Your task to perform on an android device: When is my next appointment? Image 0: 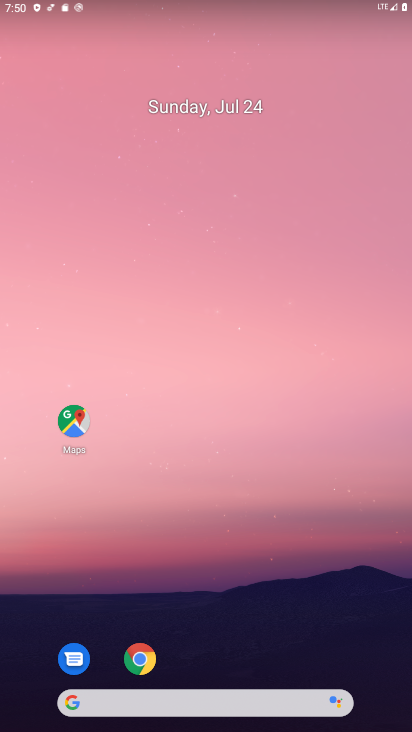
Step 0: drag from (224, 690) to (200, 242)
Your task to perform on an android device: When is my next appointment? Image 1: 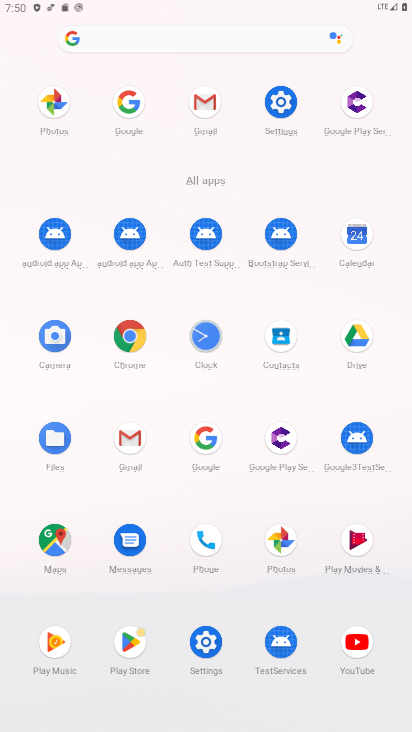
Step 1: click (357, 234)
Your task to perform on an android device: When is my next appointment? Image 2: 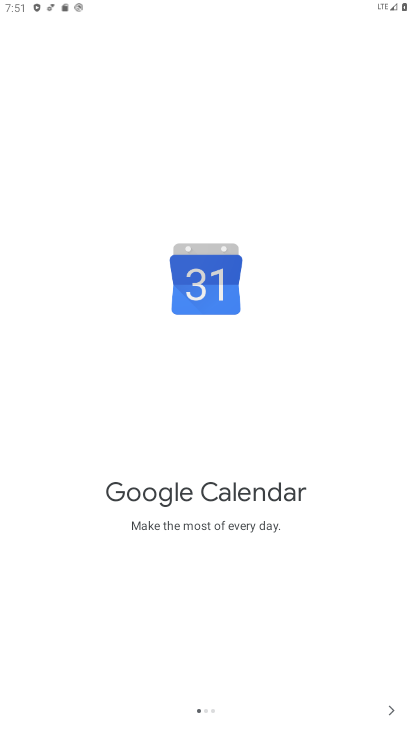
Step 2: click (391, 711)
Your task to perform on an android device: When is my next appointment? Image 3: 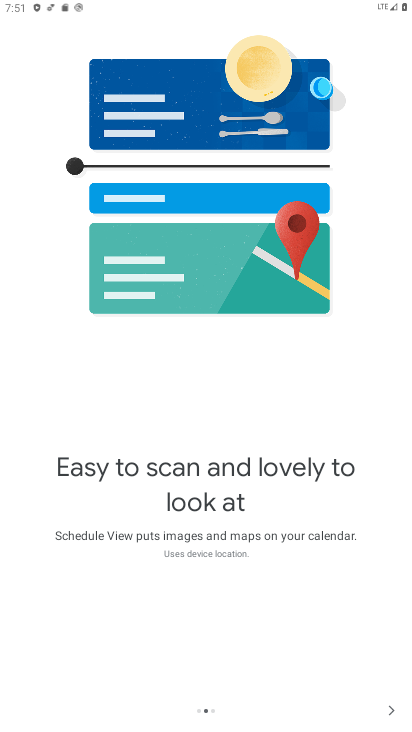
Step 3: click (394, 710)
Your task to perform on an android device: When is my next appointment? Image 4: 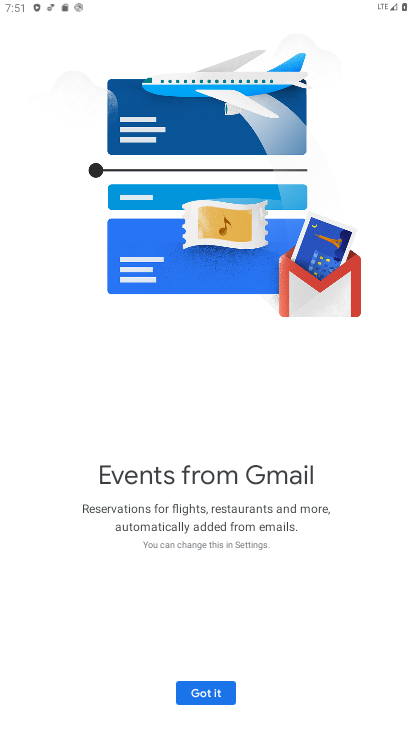
Step 4: click (217, 691)
Your task to perform on an android device: When is my next appointment? Image 5: 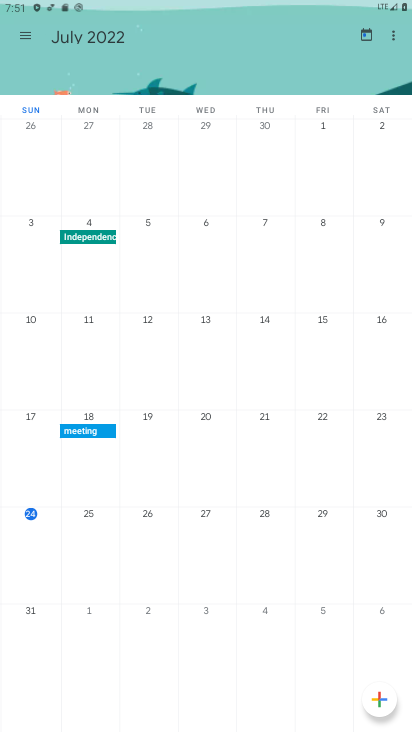
Step 5: click (93, 511)
Your task to perform on an android device: When is my next appointment? Image 6: 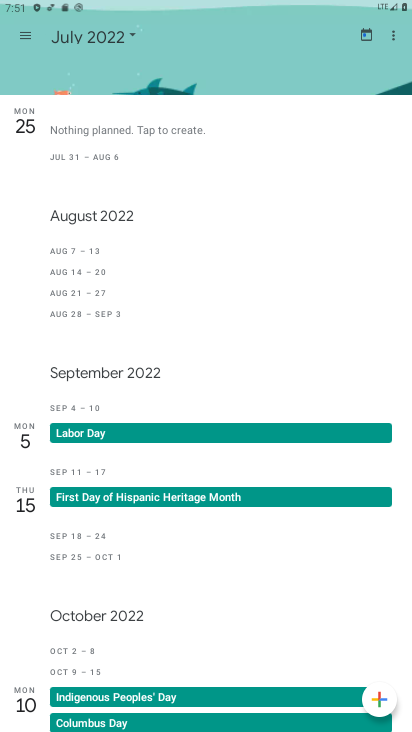
Step 6: click (134, 37)
Your task to perform on an android device: When is my next appointment? Image 7: 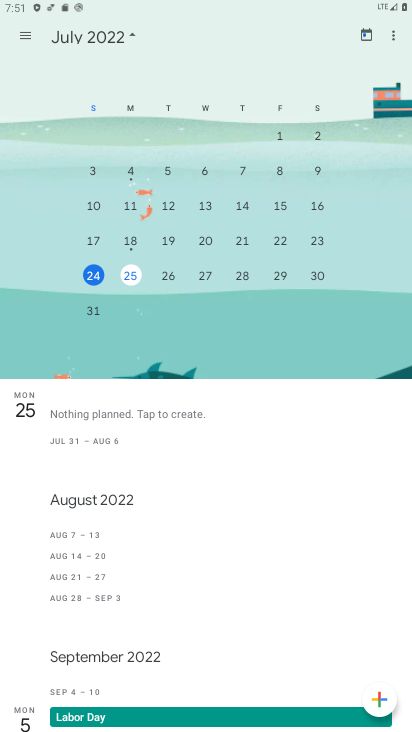
Step 7: click (131, 271)
Your task to perform on an android device: When is my next appointment? Image 8: 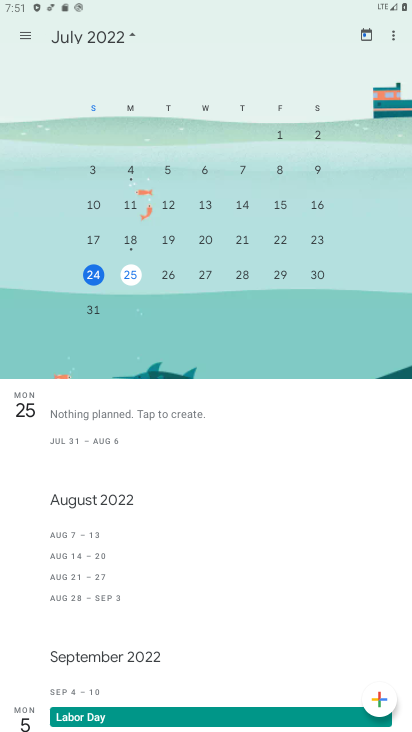
Step 8: task complete